Your task to perform on an android device: Open calendar and show me the first week of next month Image 0: 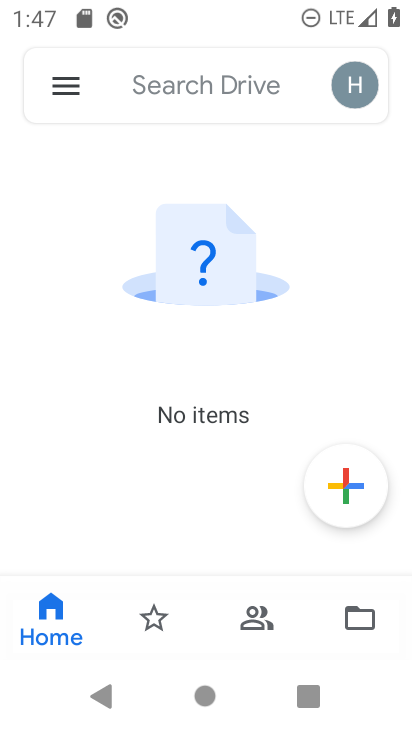
Step 0: press home button
Your task to perform on an android device: Open calendar and show me the first week of next month Image 1: 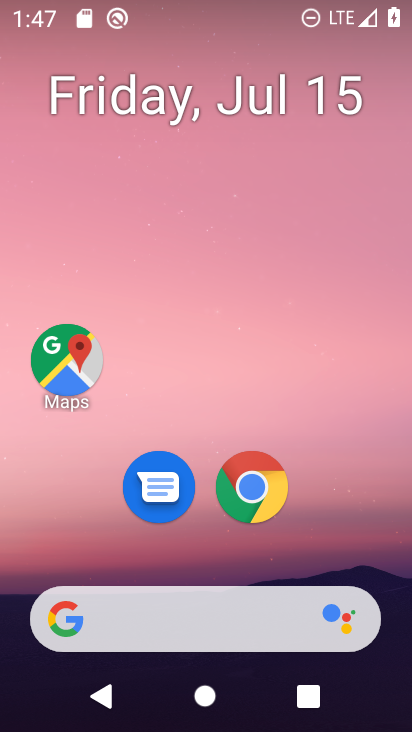
Step 1: drag from (218, 638) to (260, 256)
Your task to perform on an android device: Open calendar and show me the first week of next month Image 2: 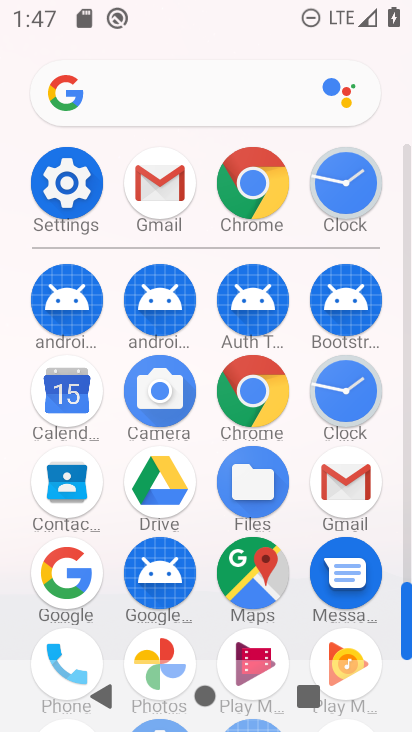
Step 2: click (84, 414)
Your task to perform on an android device: Open calendar and show me the first week of next month Image 3: 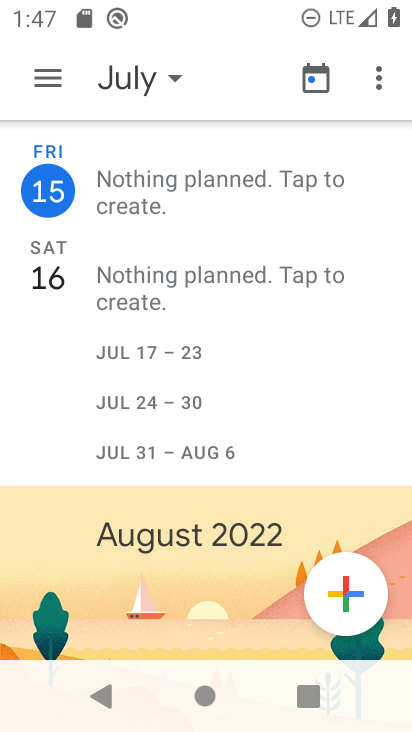
Step 3: click (149, 77)
Your task to perform on an android device: Open calendar and show me the first week of next month Image 4: 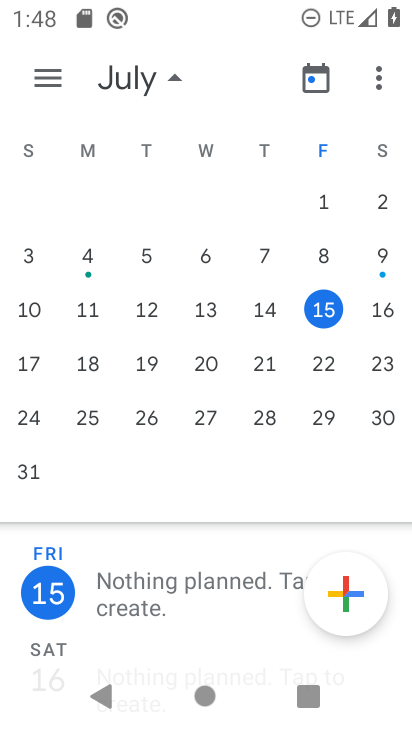
Step 4: drag from (362, 314) to (0, 362)
Your task to perform on an android device: Open calendar and show me the first week of next month Image 5: 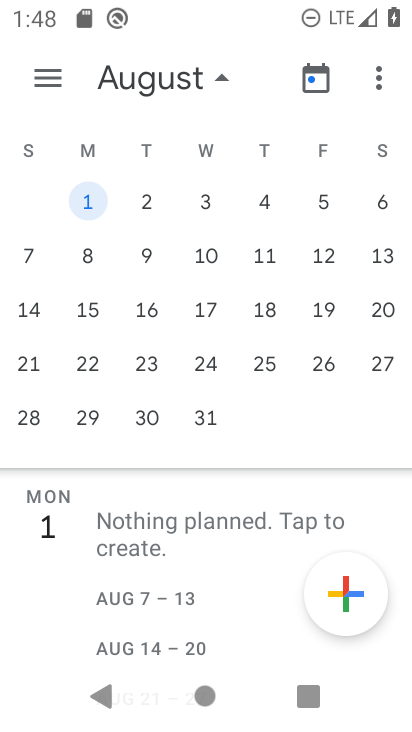
Step 5: click (91, 209)
Your task to perform on an android device: Open calendar and show me the first week of next month Image 6: 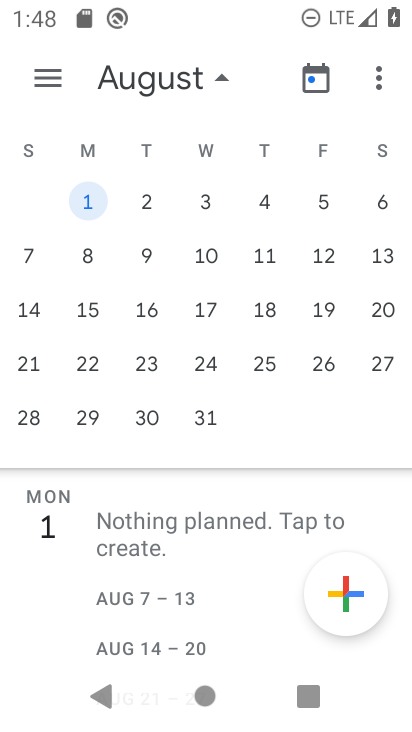
Step 6: task complete